Your task to perform on an android device: Open Yahoo.com Image 0: 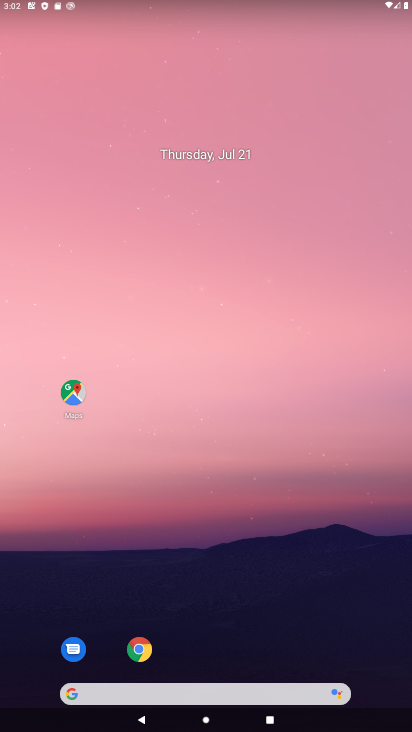
Step 0: drag from (333, 662) to (267, 146)
Your task to perform on an android device: Open Yahoo.com Image 1: 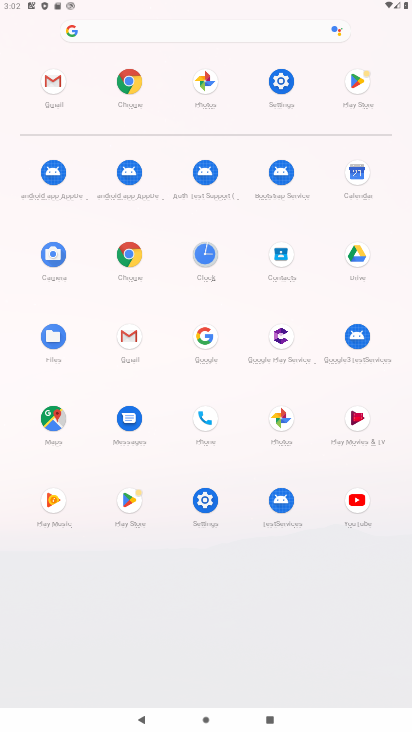
Step 1: click (259, 43)
Your task to perform on an android device: Open Yahoo.com Image 2: 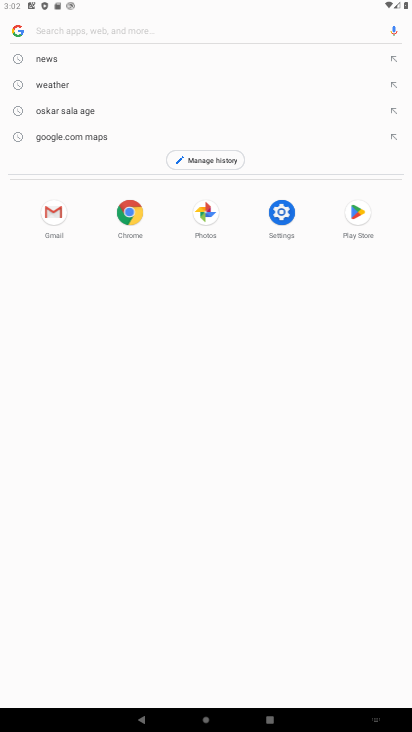
Step 2: click (261, 34)
Your task to perform on an android device: Open Yahoo.com Image 3: 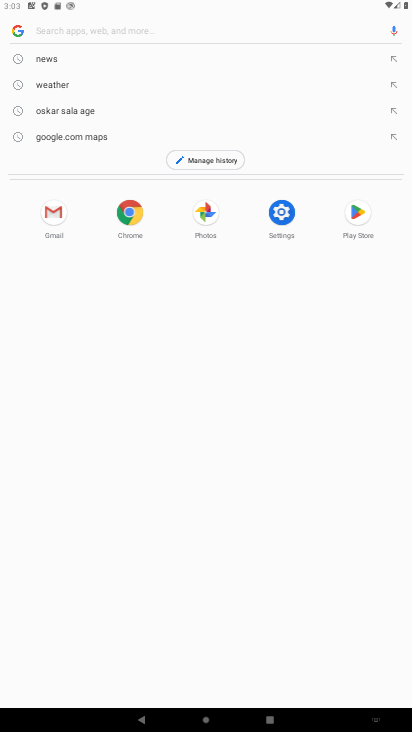
Step 3: type "yahoo.com"
Your task to perform on an android device: Open Yahoo.com Image 4: 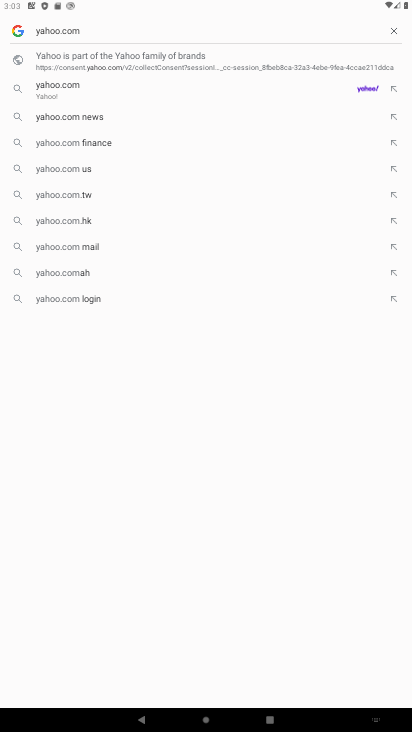
Step 4: click (188, 73)
Your task to perform on an android device: Open Yahoo.com Image 5: 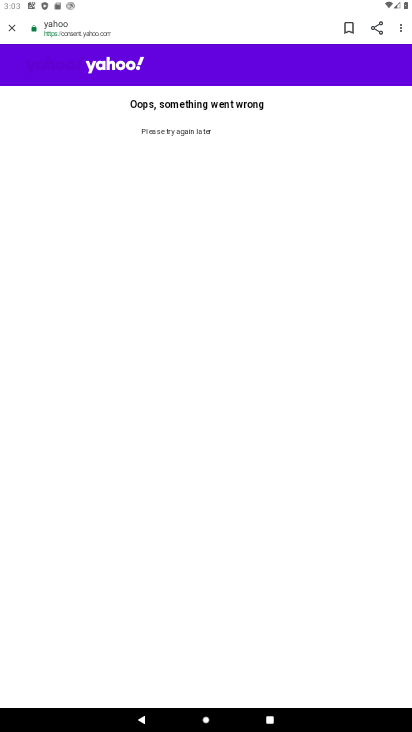
Step 5: task complete